Your task to perform on an android device: Open settings Image 0: 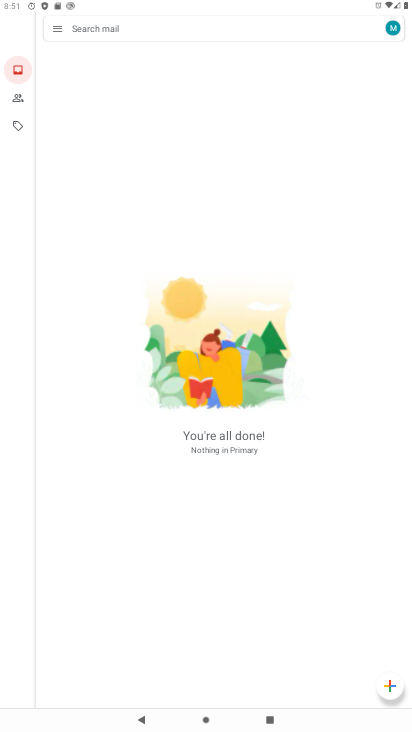
Step 0: press home button
Your task to perform on an android device: Open settings Image 1: 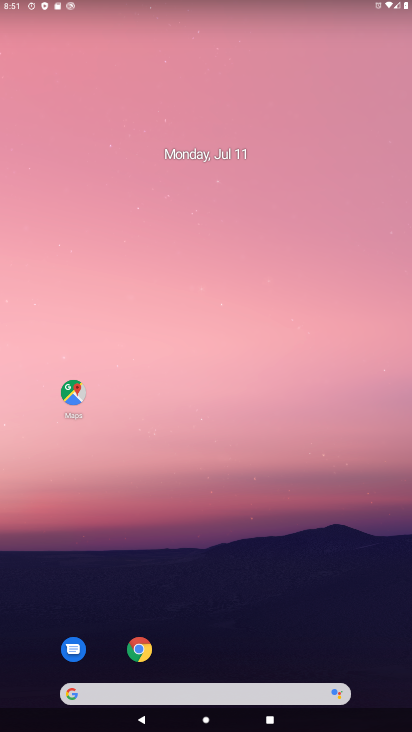
Step 1: drag from (204, 690) to (272, 164)
Your task to perform on an android device: Open settings Image 2: 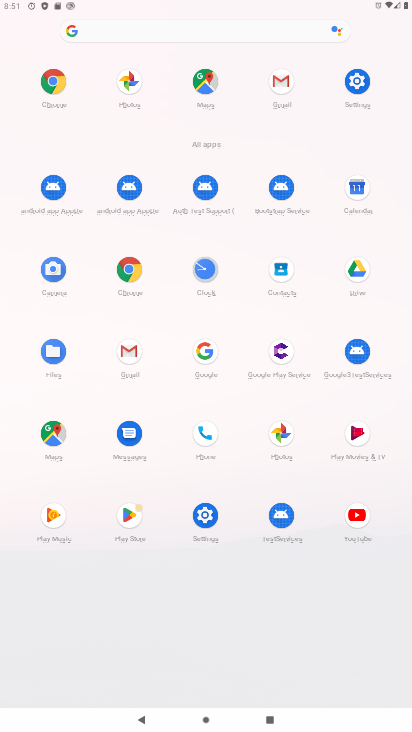
Step 2: click (357, 81)
Your task to perform on an android device: Open settings Image 3: 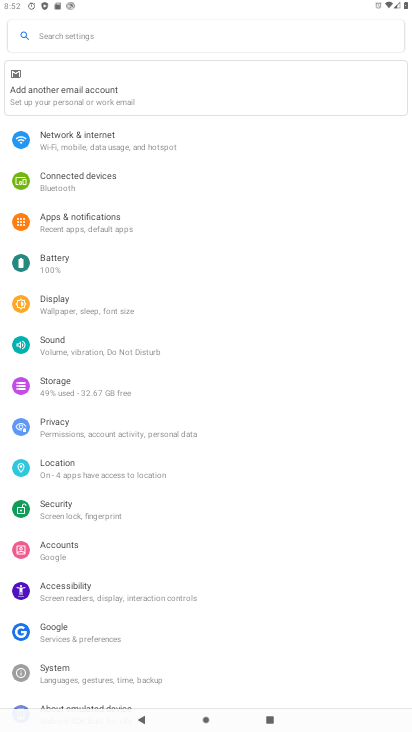
Step 3: task complete